Your task to perform on an android device: Go to Reddit.com Image 0: 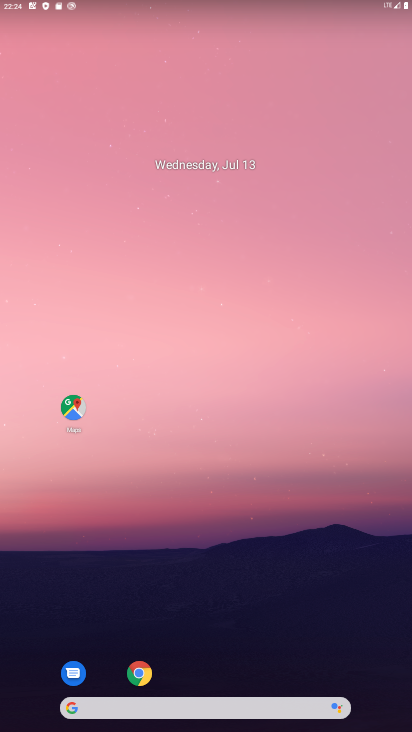
Step 0: drag from (211, 678) to (342, 200)
Your task to perform on an android device: Go to Reddit.com Image 1: 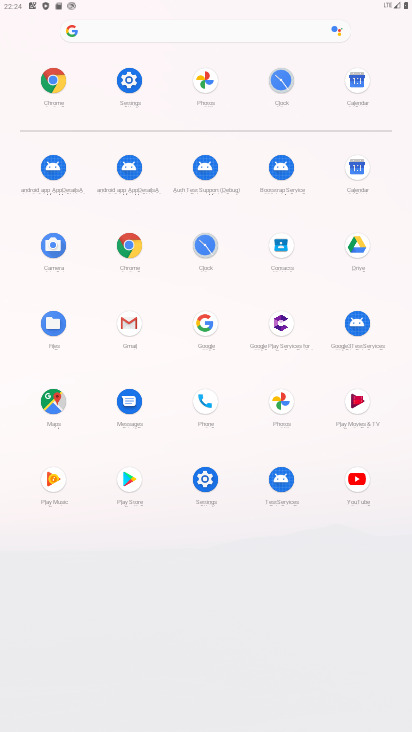
Step 1: click (148, 33)
Your task to perform on an android device: Go to Reddit.com Image 2: 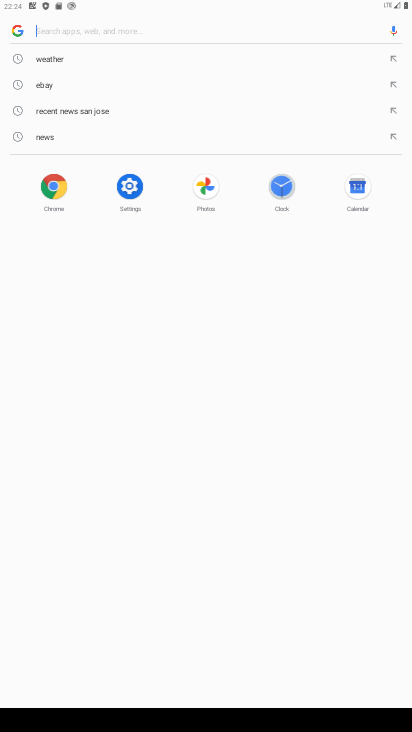
Step 2: type "reddit.com"
Your task to perform on an android device: Go to Reddit.com Image 3: 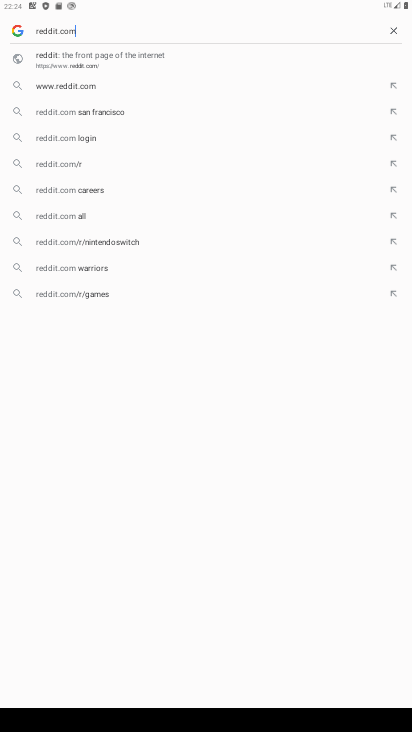
Step 3: click (77, 59)
Your task to perform on an android device: Go to Reddit.com Image 4: 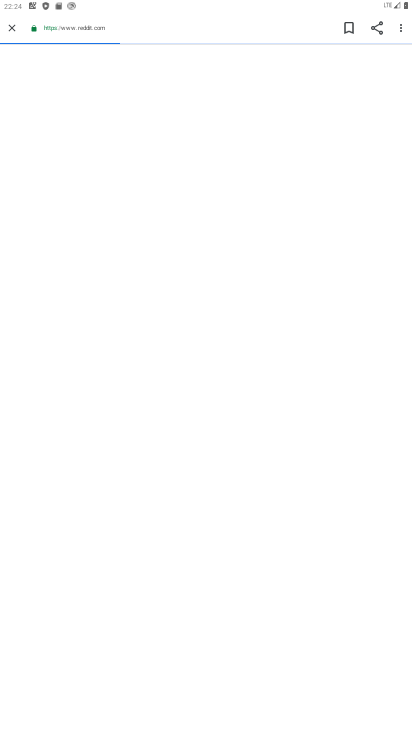
Step 4: task complete